Your task to perform on an android device: Search for vegetarian restaurants on Maps Image 0: 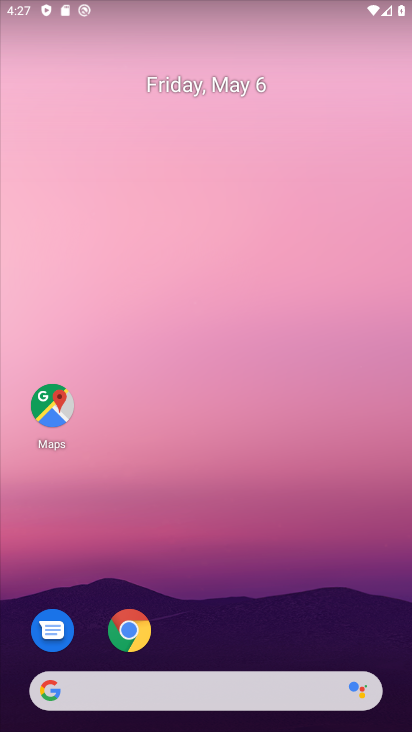
Step 0: drag from (264, 545) to (236, 175)
Your task to perform on an android device: Search for vegetarian restaurants on Maps Image 1: 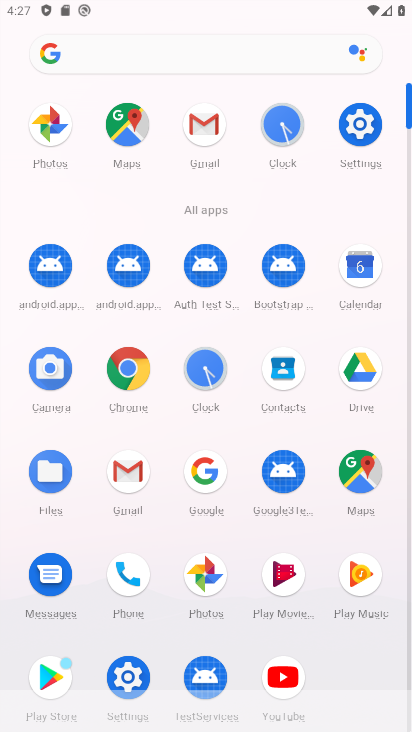
Step 1: click (340, 466)
Your task to perform on an android device: Search for vegetarian restaurants on Maps Image 2: 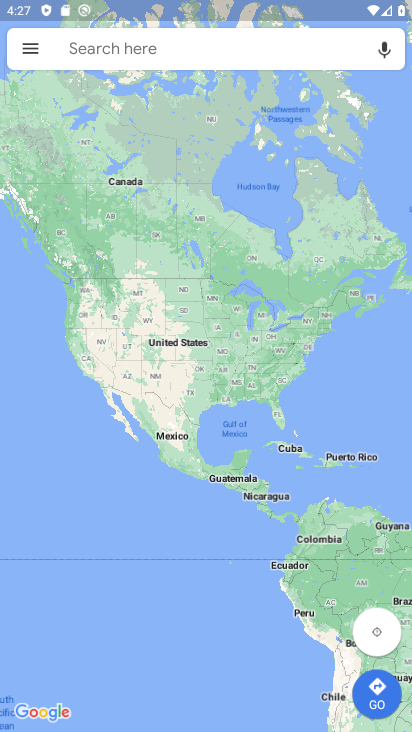
Step 2: click (160, 42)
Your task to perform on an android device: Search for vegetarian restaurants on Maps Image 3: 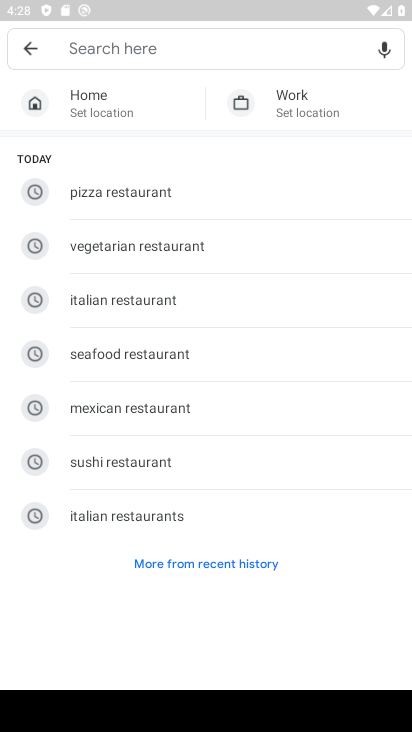
Step 3: type "vegetarian restaurants "
Your task to perform on an android device: Search for vegetarian restaurants on Maps Image 4: 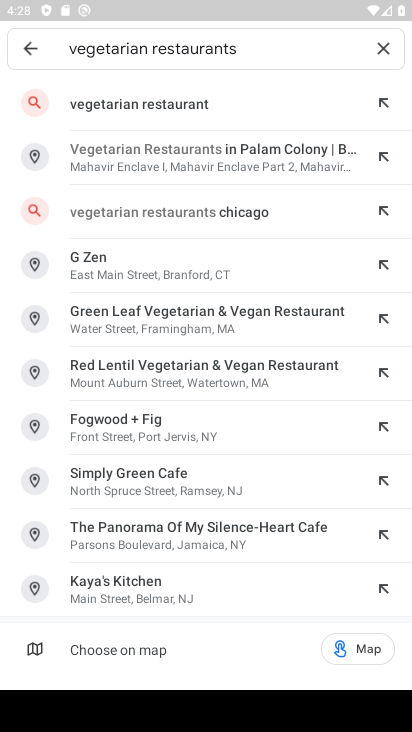
Step 4: click (172, 105)
Your task to perform on an android device: Search for vegetarian restaurants on Maps Image 5: 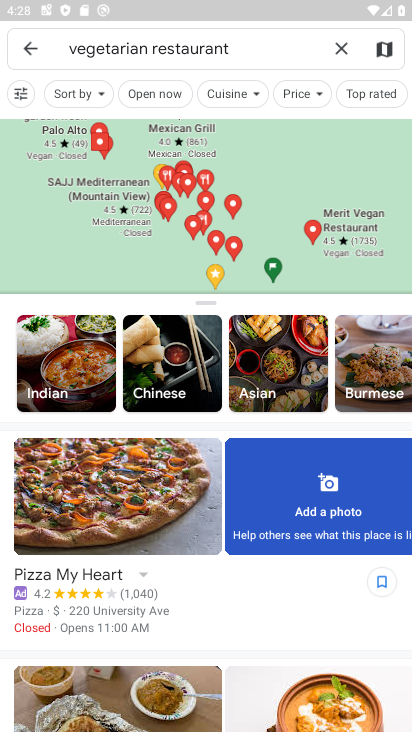
Step 5: task complete